Your task to perform on an android device: Go to internet settings Image 0: 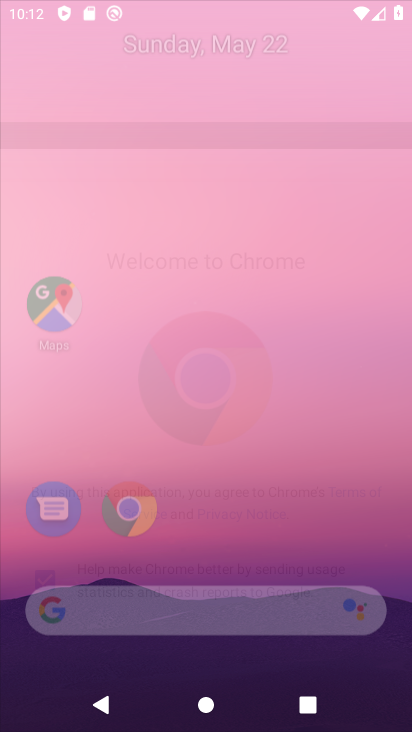
Step 0: click (55, 335)
Your task to perform on an android device: Go to internet settings Image 1: 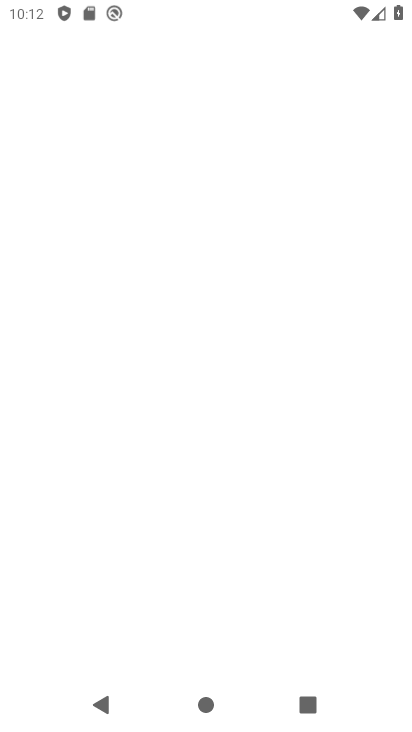
Step 1: press home button
Your task to perform on an android device: Go to internet settings Image 2: 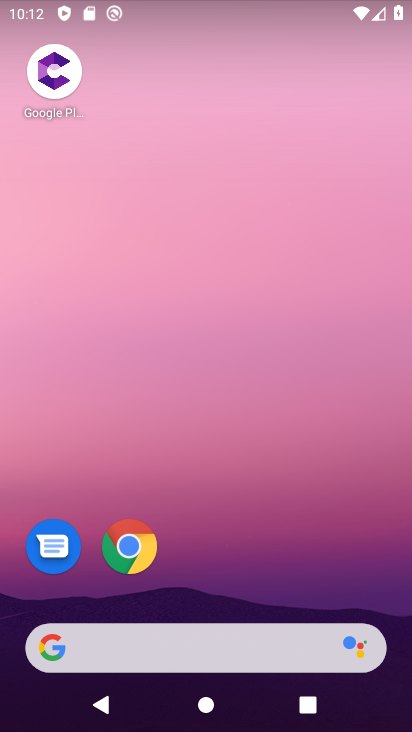
Step 2: drag from (217, 575) to (237, 37)
Your task to perform on an android device: Go to internet settings Image 3: 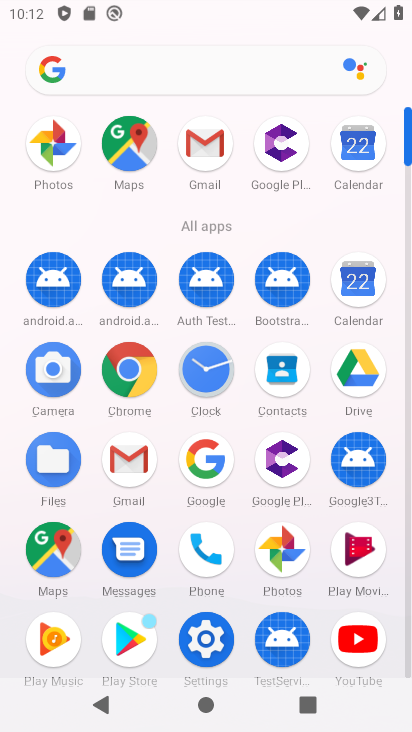
Step 3: click (218, 628)
Your task to perform on an android device: Go to internet settings Image 4: 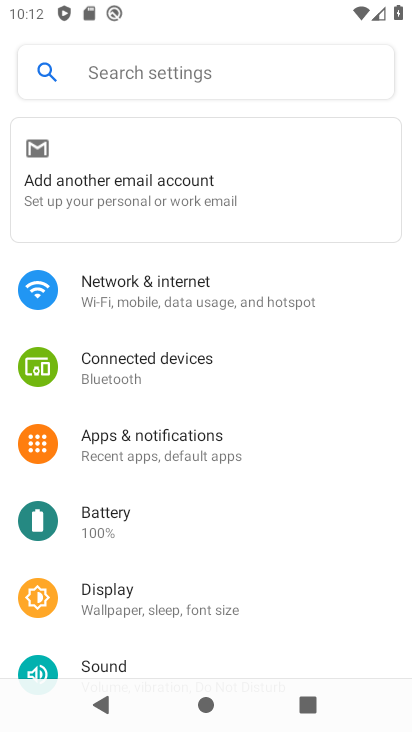
Step 4: click (135, 308)
Your task to perform on an android device: Go to internet settings Image 5: 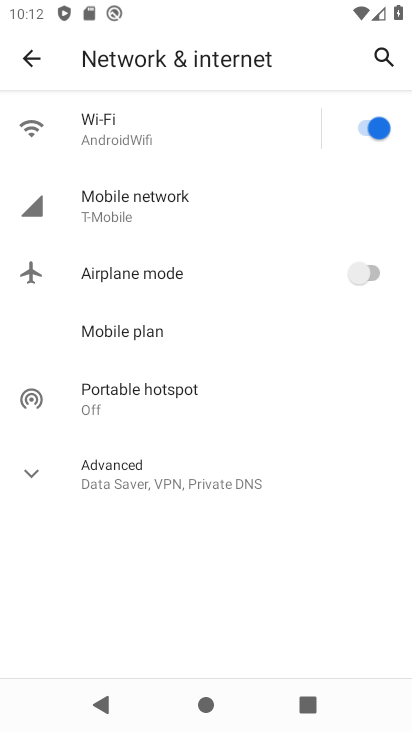
Step 5: task complete